Your task to perform on an android device: Go to internet settings Image 0: 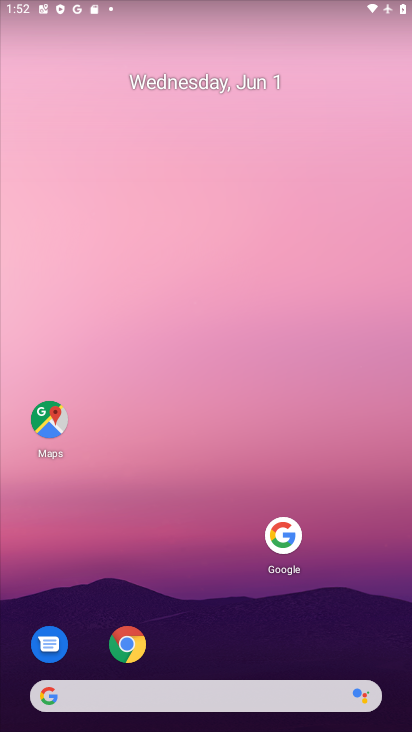
Step 0: drag from (131, 695) to (311, 160)
Your task to perform on an android device: Go to internet settings Image 1: 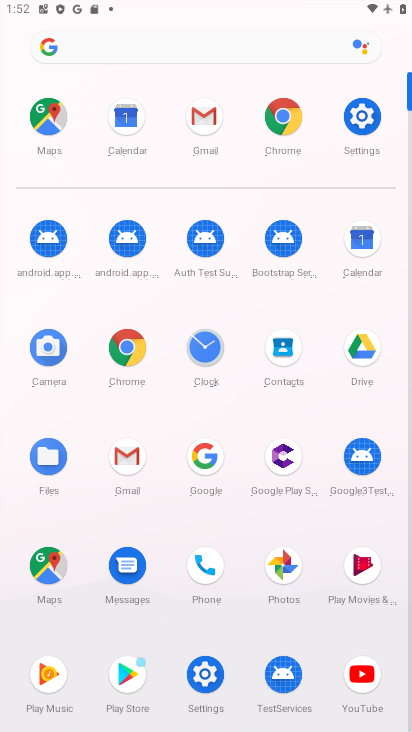
Step 1: click (370, 110)
Your task to perform on an android device: Go to internet settings Image 2: 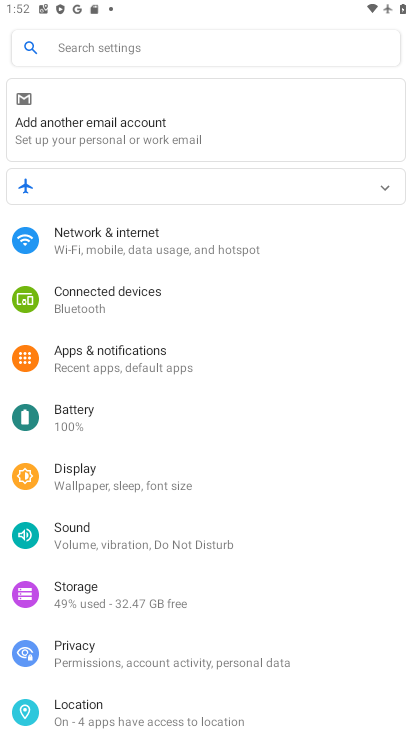
Step 2: click (126, 243)
Your task to perform on an android device: Go to internet settings Image 3: 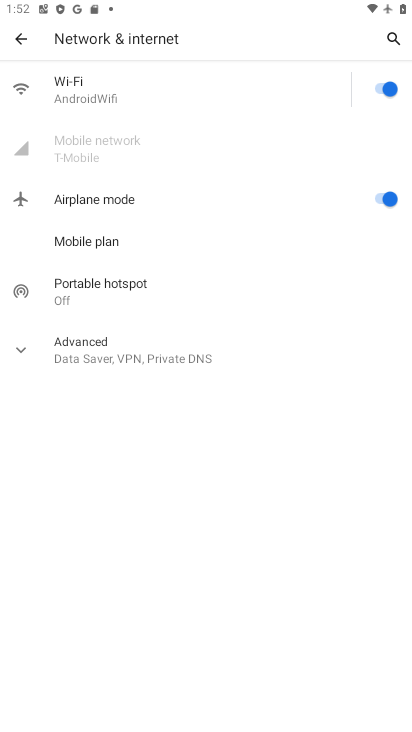
Step 3: task complete